Your task to perform on an android device: turn off location history Image 0: 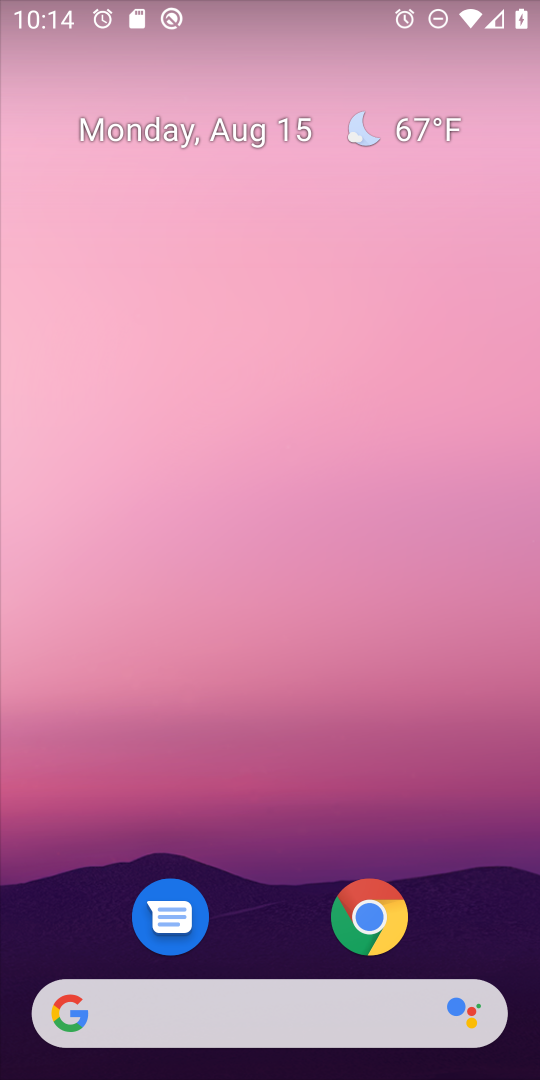
Step 0: drag from (266, 844) to (267, 5)
Your task to perform on an android device: turn off location history Image 1: 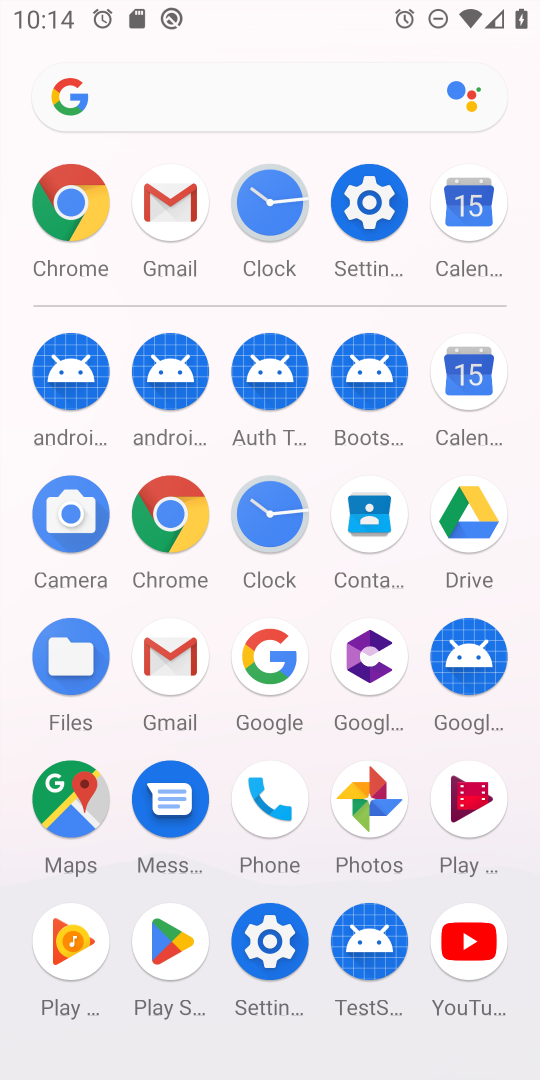
Step 1: click (364, 199)
Your task to perform on an android device: turn off location history Image 2: 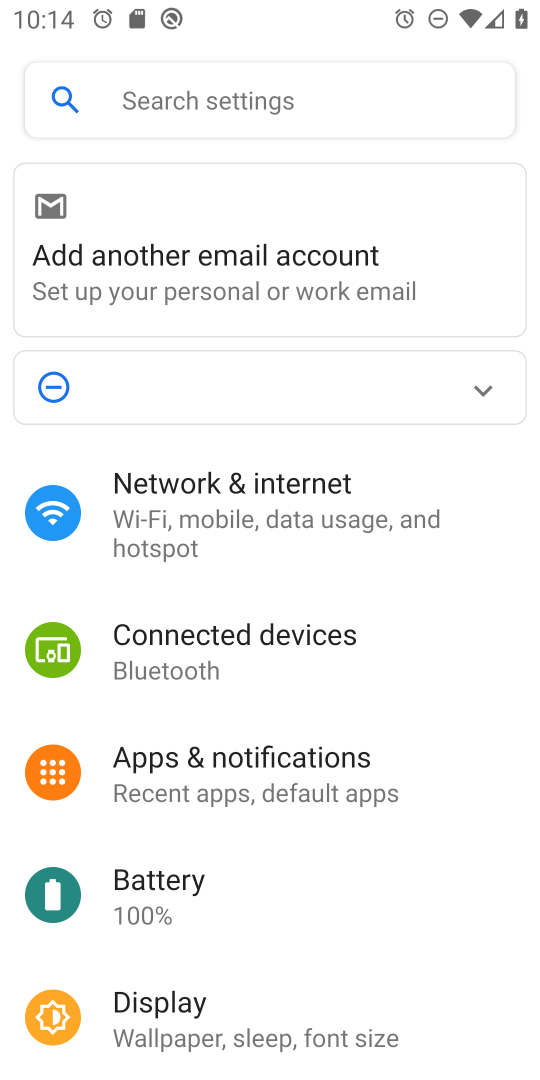
Step 2: drag from (267, 872) to (282, 67)
Your task to perform on an android device: turn off location history Image 3: 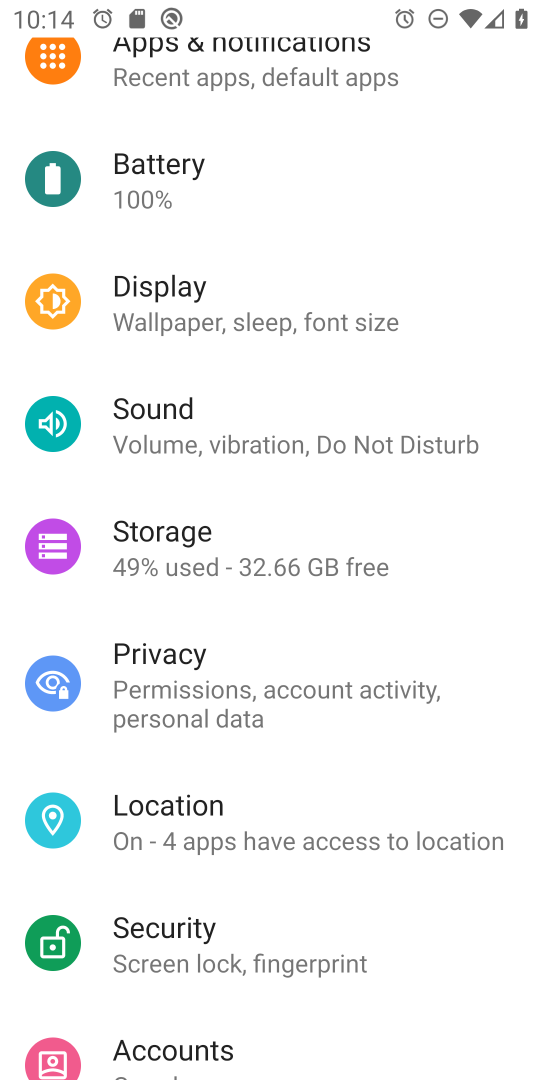
Step 3: click (325, 849)
Your task to perform on an android device: turn off location history Image 4: 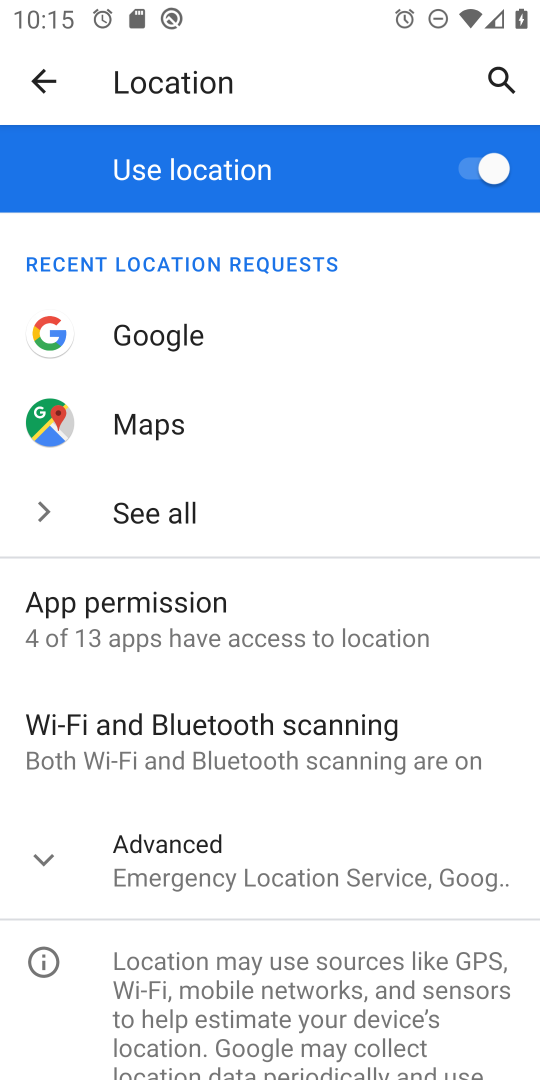
Step 4: click (41, 859)
Your task to perform on an android device: turn off location history Image 5: 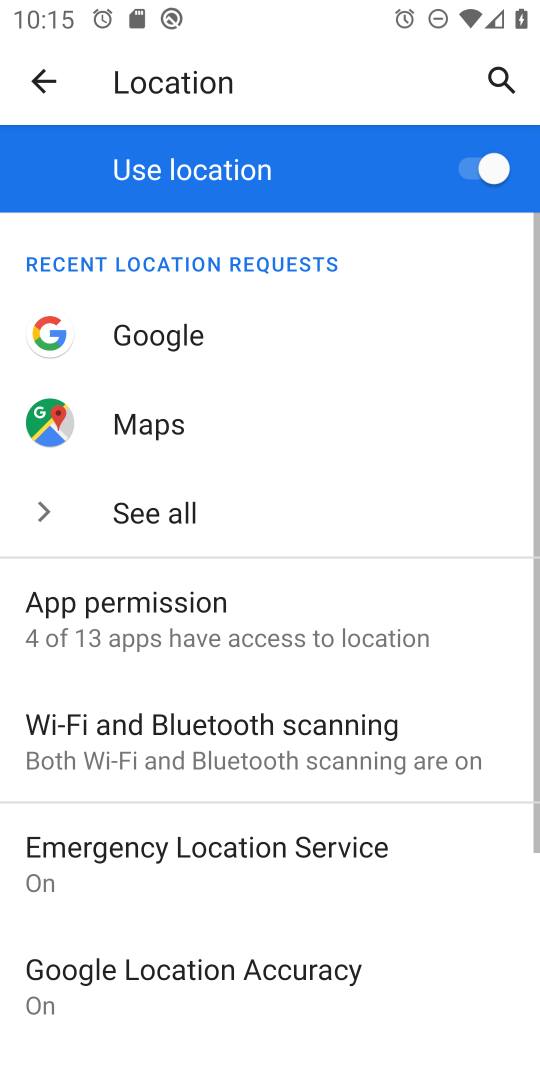
Step 5: drag from (278, 869) to (303, 365)
Your task to perform on an android device: turn off location history Image 6: 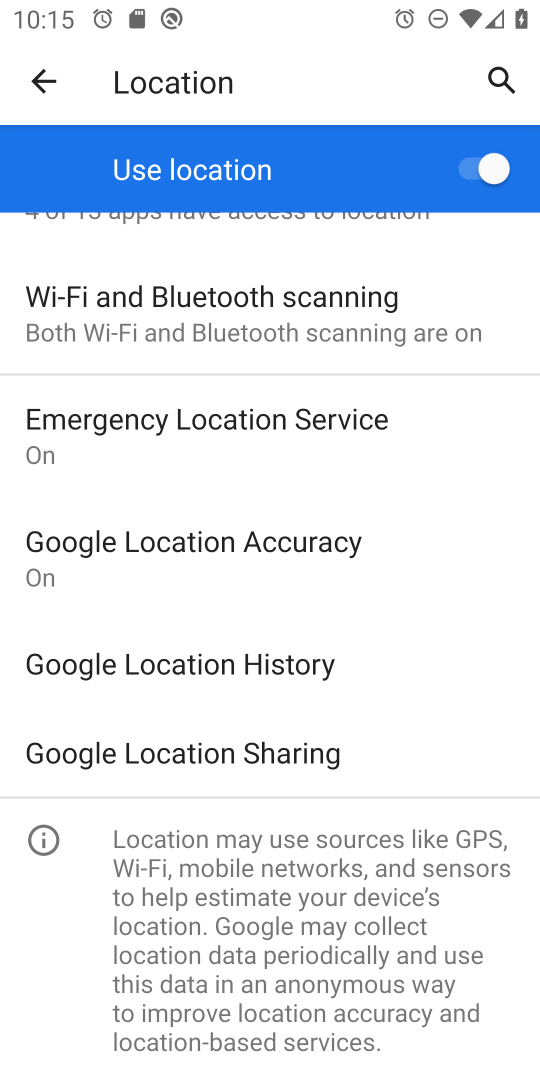
Step 6: click (293, 662)
Your task to perform on an android device: turn off location history Image 7: 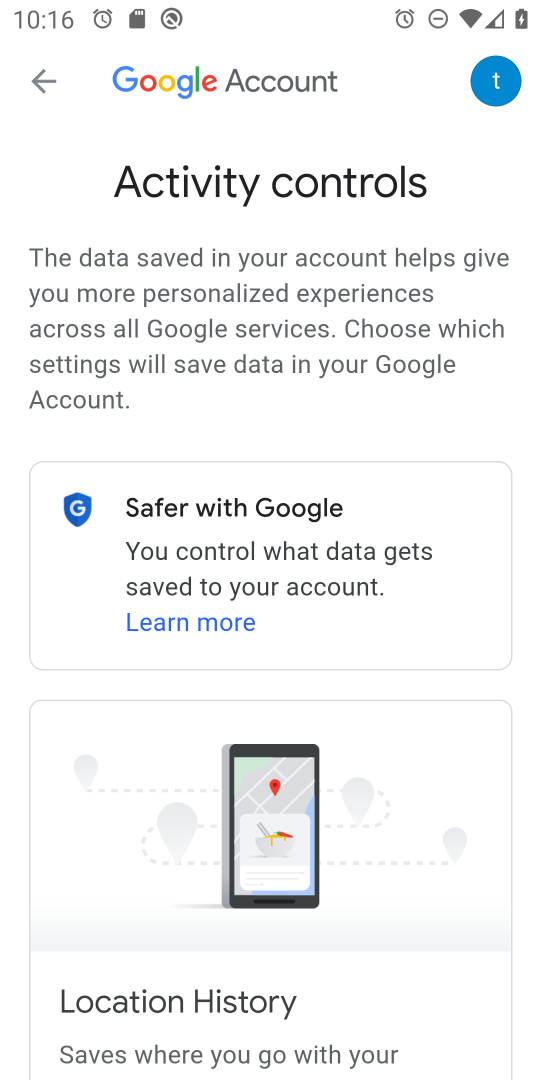
Step 7: drag from (401, 828) to (433, 233)
Your task to perform on an android device: turn off location history Image 8: 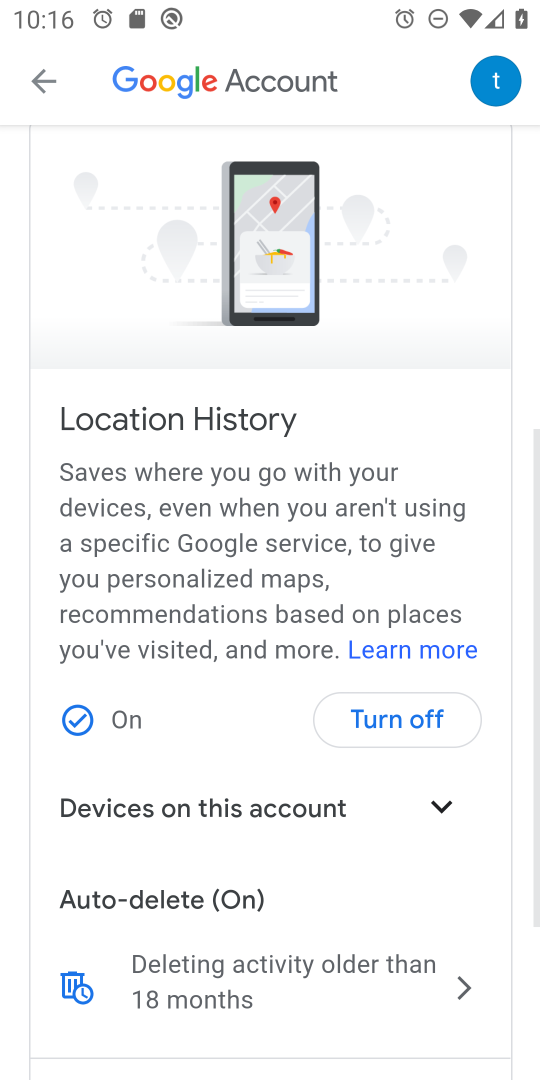
Step 8: drag from (378, 906) to (417, 203)
Your task to perform on an android device: turn off location history Image 9: 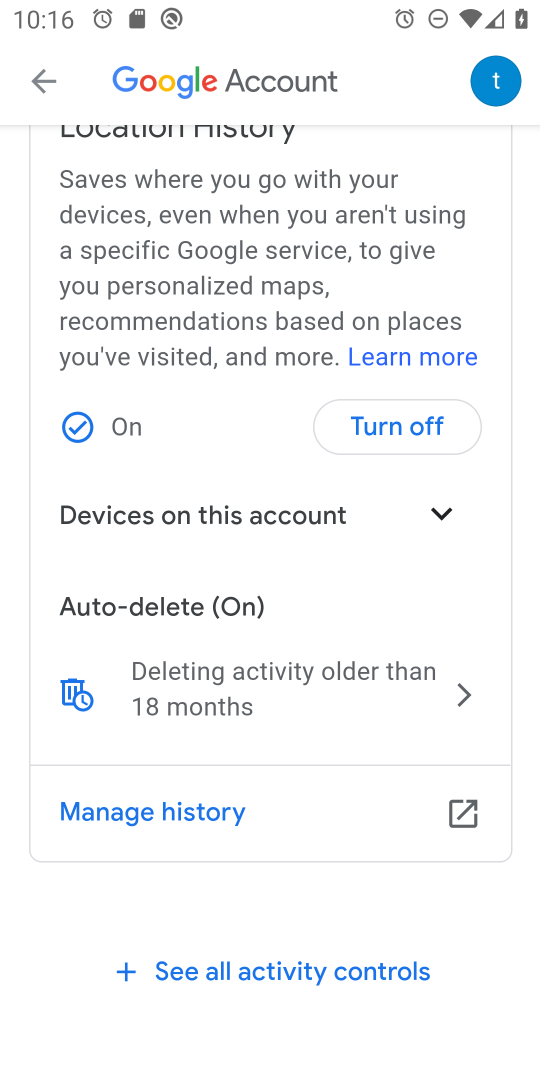
Step 9: click (400, 416)
Your task to perform on an android device: turn off location history Image 10: 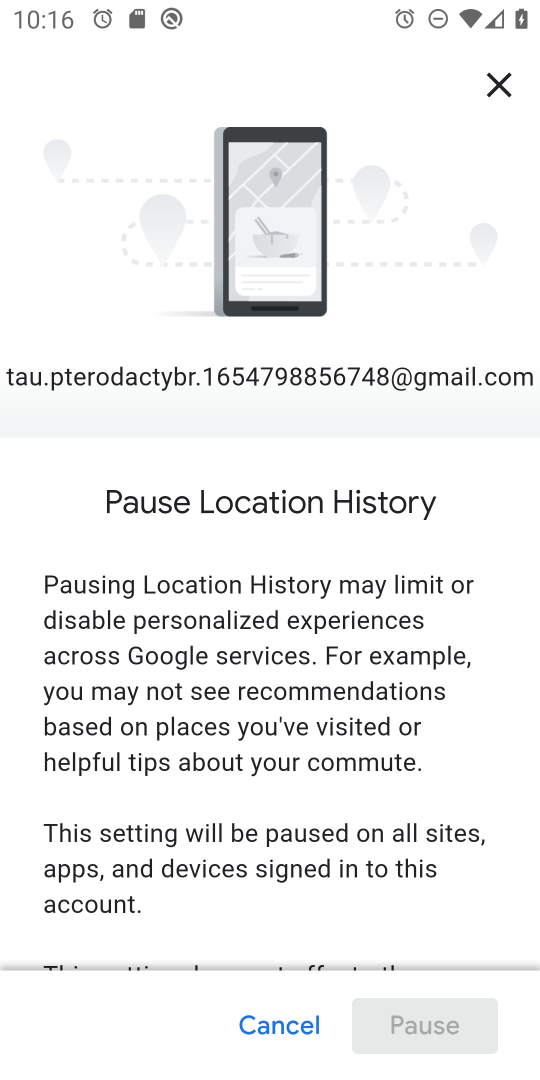
Step 10: drag from (357, 915) to (374, 35)
Your task to perform on an android device: turn off location history Image 11: 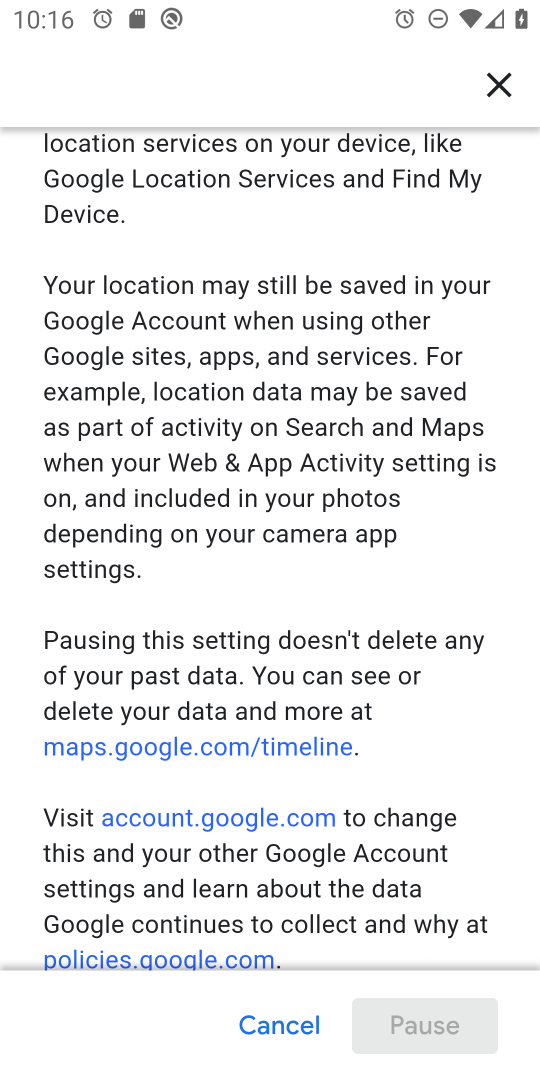
Step 11: drag from (272, 828) to (327, 0)
Your task to perform on an android device: turn off location history Image 12: 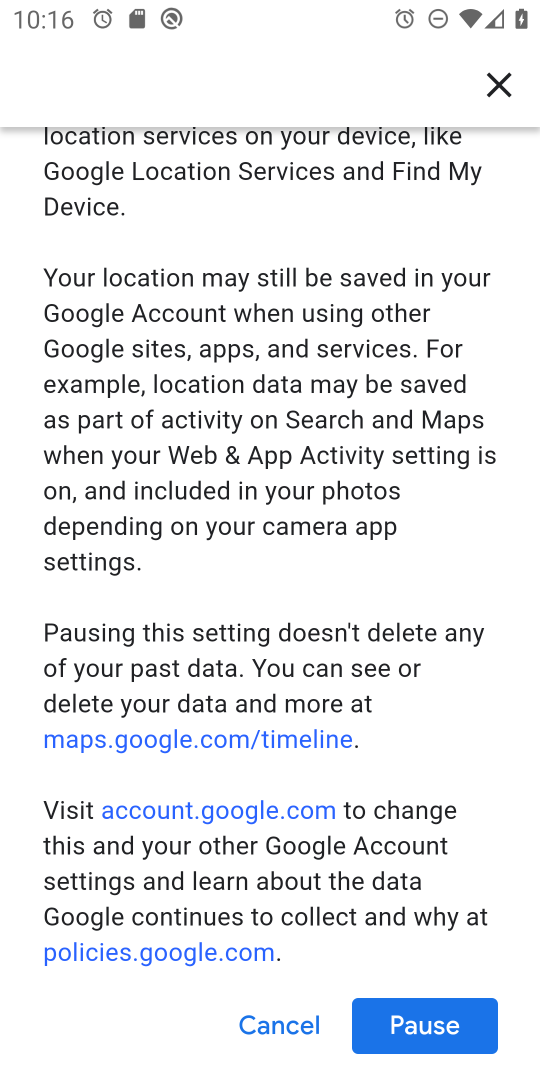
Step 12: click (451, 1024)
Your task to perform on an android device: turn off location history Image 13: 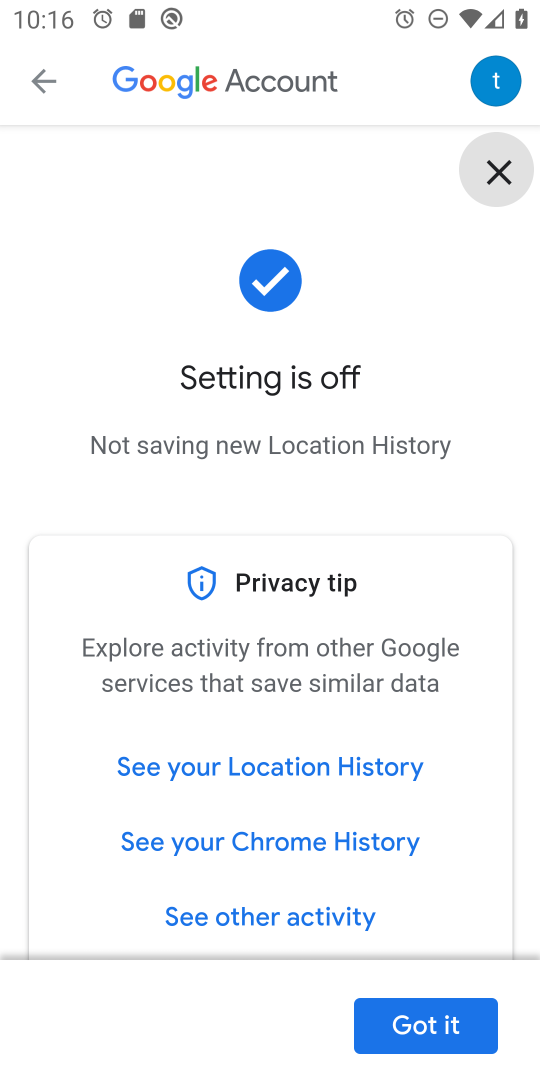
Step 13: click (455, 1027)
Your task to perform on an android device: turn off location history Image 14: 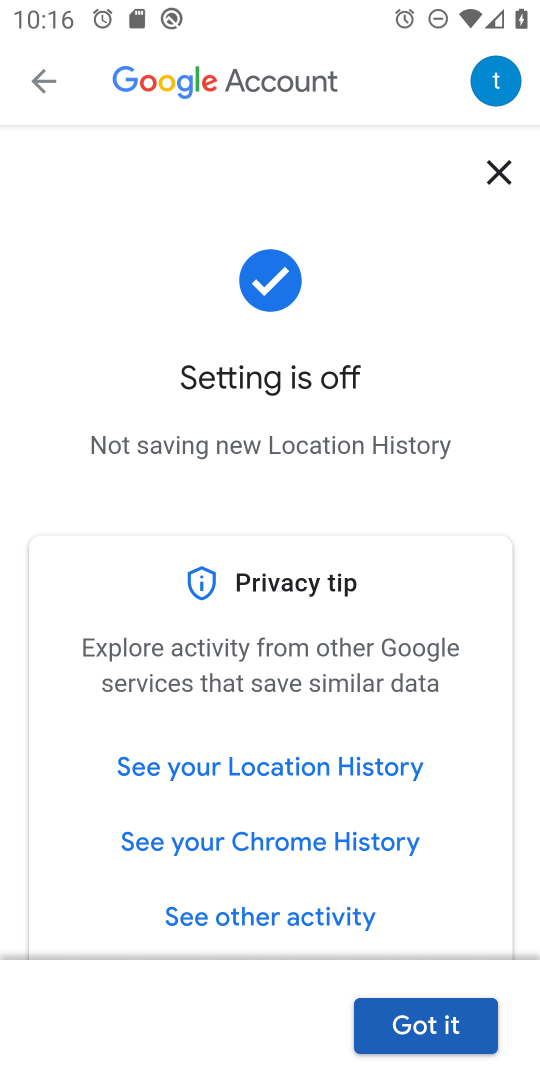
Step 14: click (481, 1025)
Your task to perform on an android device: turn off location history Image 15: 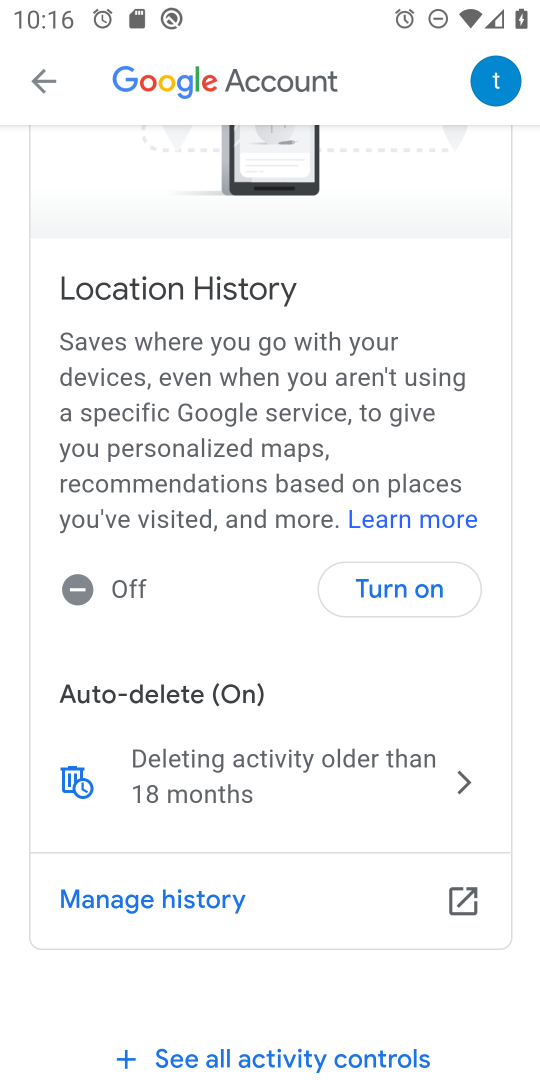
Step 15: task complete